Your task to perform on an android device: clear all cookies in the chrome app Image 0: 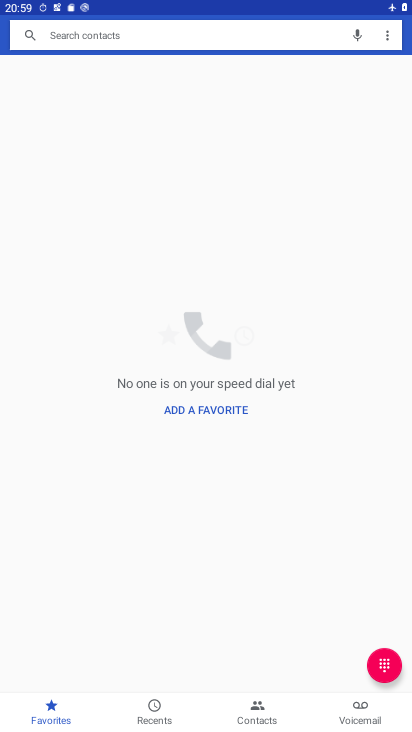
Step 0: press home button
Your task to perform on an android device: clear all cookies in the chrome app Image 1: 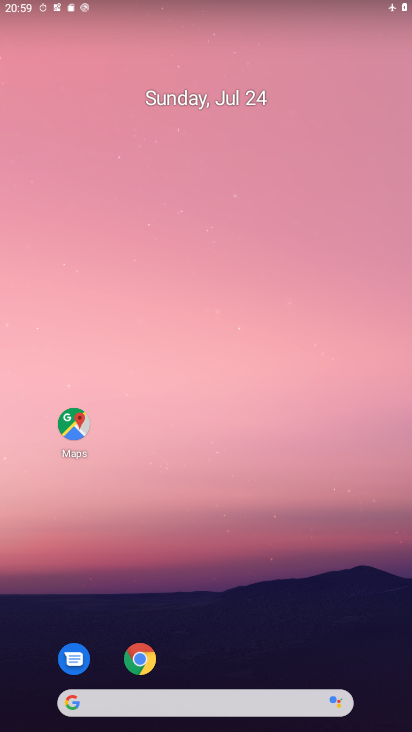
Step 1: click (143, 659)
Your task to perform on an android device: clear all cookies in the chrome app Image 2: 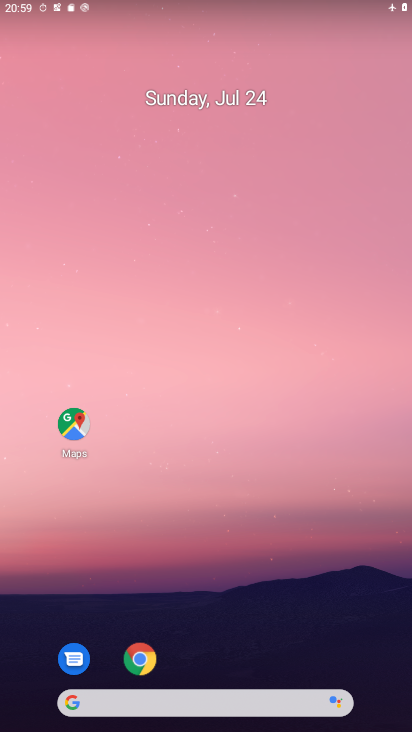
Step 2: click (143, 659)
Your task to perform on an android device: clear all cookies in the chrome app Image 3: 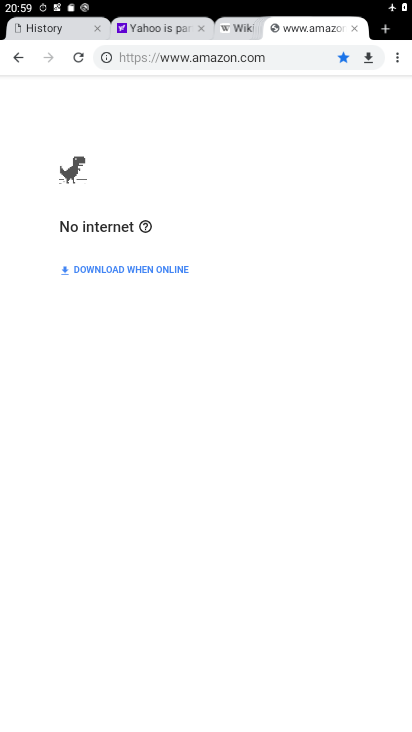
Step 3: click (396, 59)
Your task to perform on an android device: clear all cookies in the chrome app Image 4: 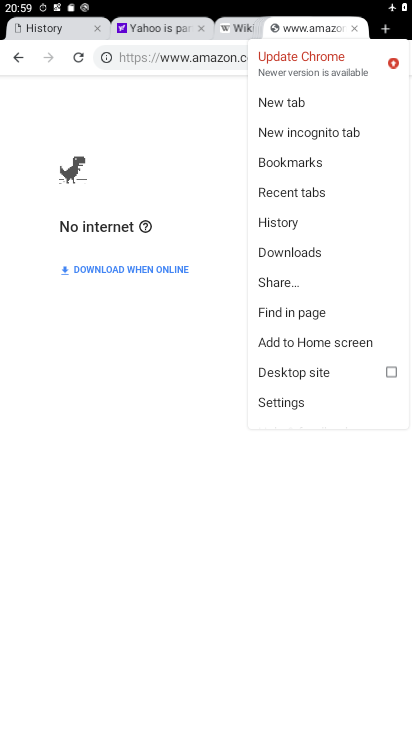
Step 4: click (281, 219)
Your task to perform on an android device: clear all cookies in the chrome app Image 5: 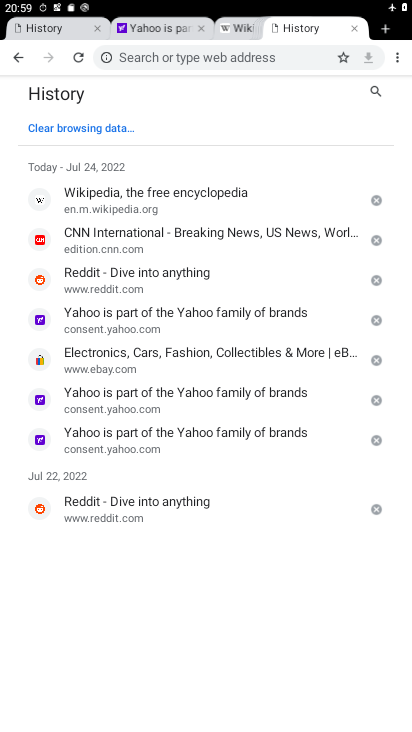
Step 5: click (94, 127)
Your task to perform on an android device: clear all cookies in the chrome app Image 6: 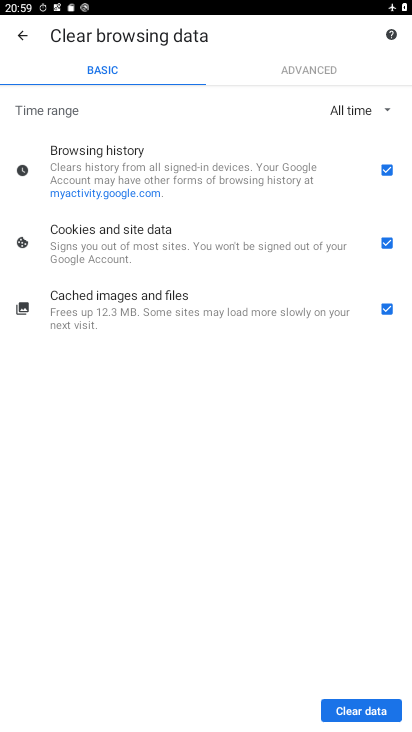
Step 6: click (383, 303)
Your task to perform on an android device: clear all cookies in the chrome app Image 7: 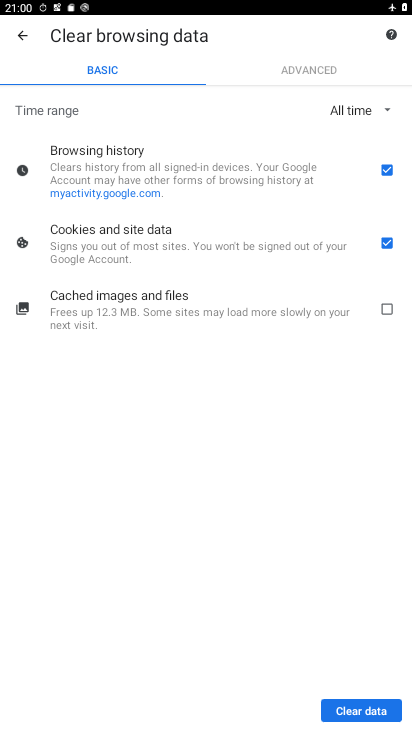
Step 7: click (386, 168)
Your task to perform on an android device: clear all cookies in the chrome app Image 8: 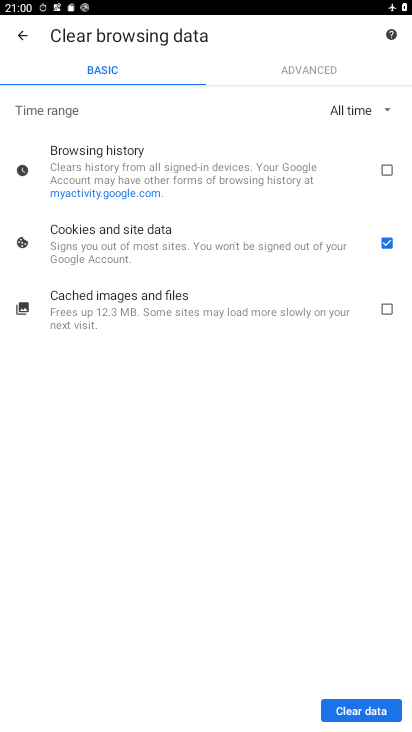
Step 8: click (348, 710)
Your task to perform on an android device: clear all cookies in the chrome app Image 9: 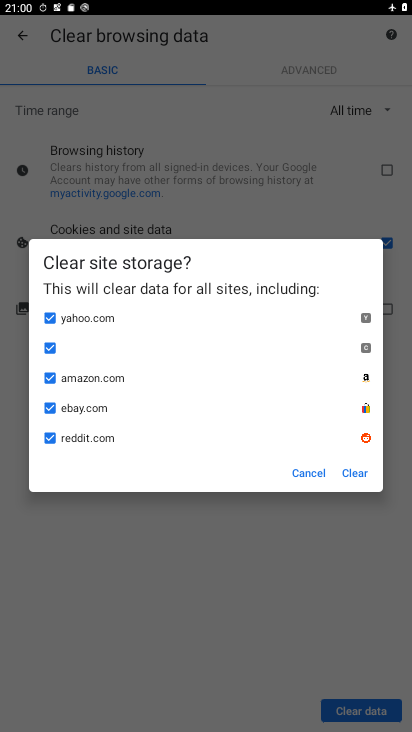
Step 9: click (352, 471)
Your task to perform on an android device: clear all cookies in the chrome app Image 10: 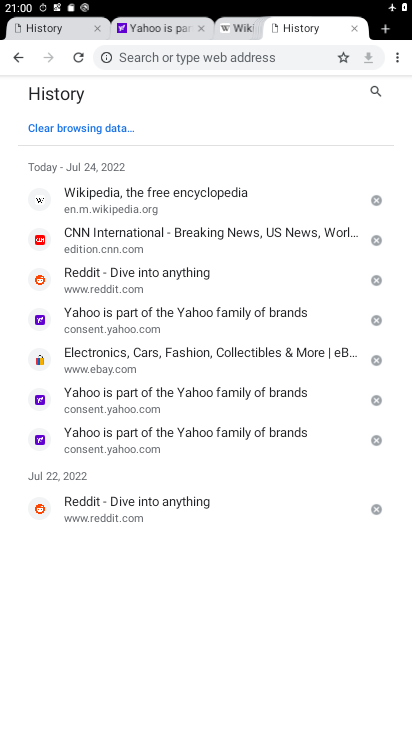
Step 10: task complete